Your task to perform on an android device: turn off notifications in google photos Image 0: 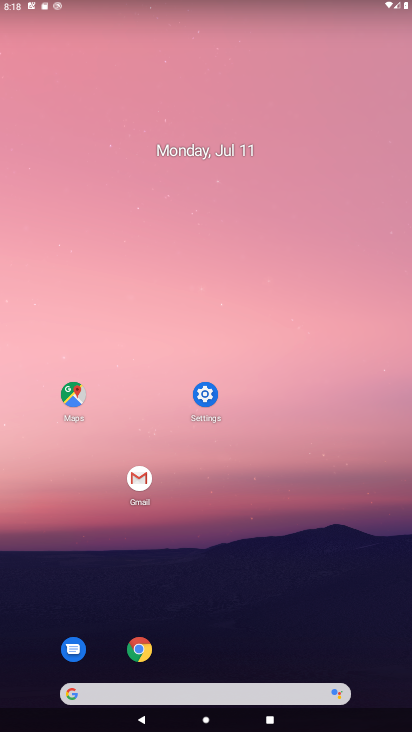
Step 0: drag from (380, 585) to (366, 197)
Your task to perform on an android device: turn off notifications in google photos Image 1: 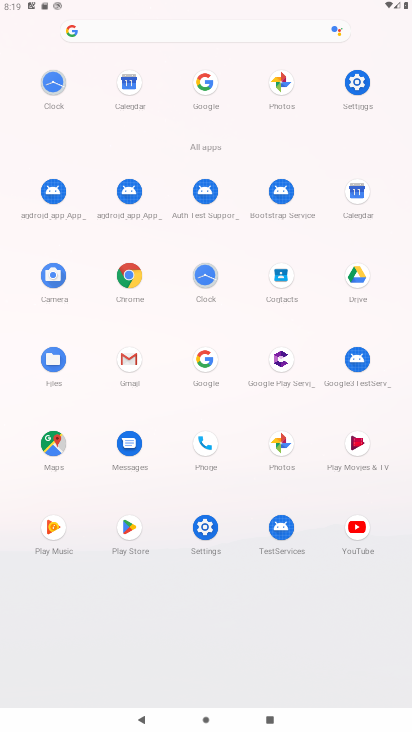
Step 1: click (280, 448)
Your task to perform on an android device: turn off notifications in google photos Image 2: 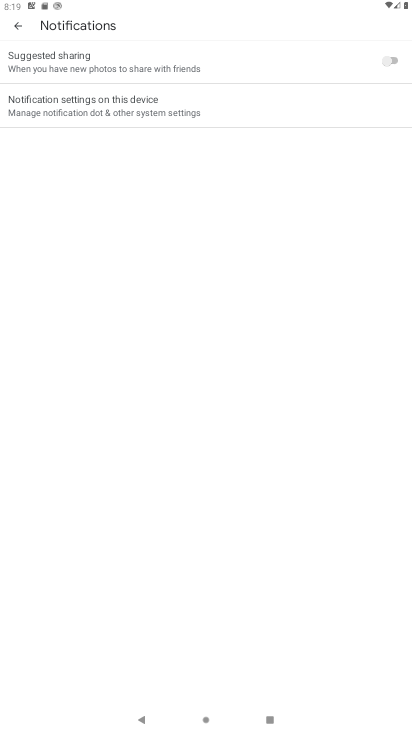
Step 2: click (10, 27)
Your task to perform on an android device: turn off notifications in google photos Image 3: 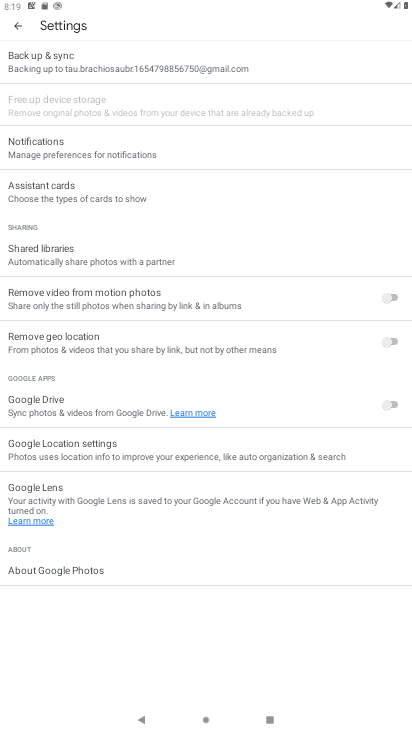
Step 3: click (32, 147)
Your task to perform on an android device: turn off notifications in google photos Image 4: 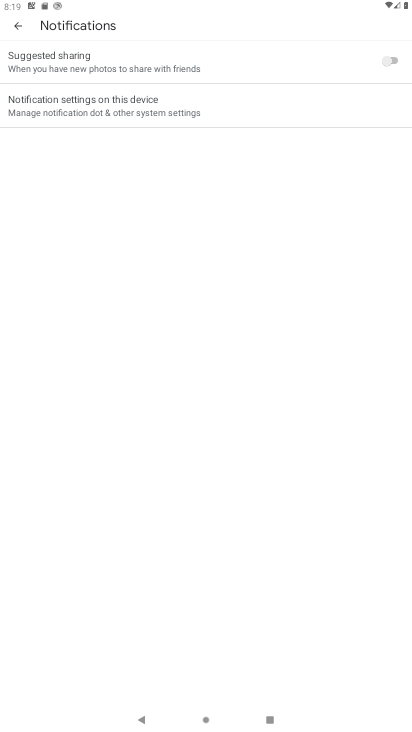
Step 4: task complete